Your task to perform on an android device: Do I have any events tomorrow? Image 0: 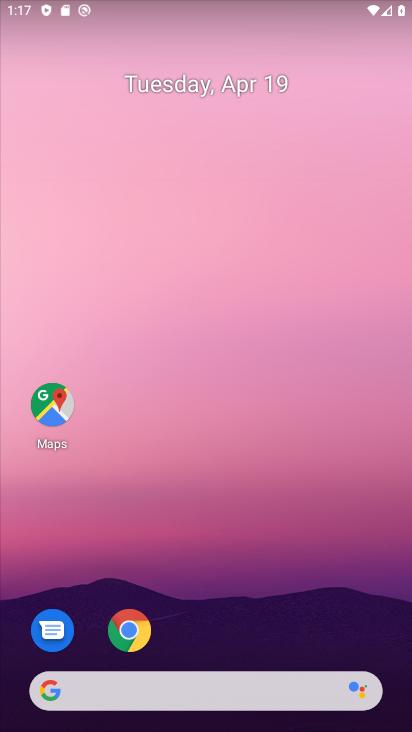
Step 0: click (274, 50)
Your task to perform on an android device: Do I have any events tomorrow? Image 1: 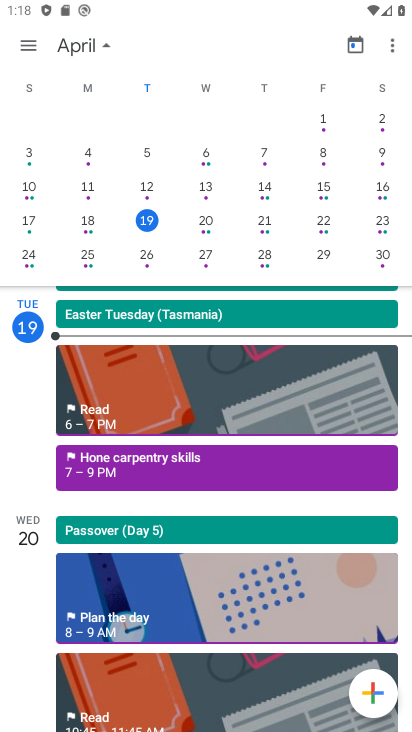
Step 1: press back button
Your task to perform on an android device: Do I have any events tomorrow? Image 2: 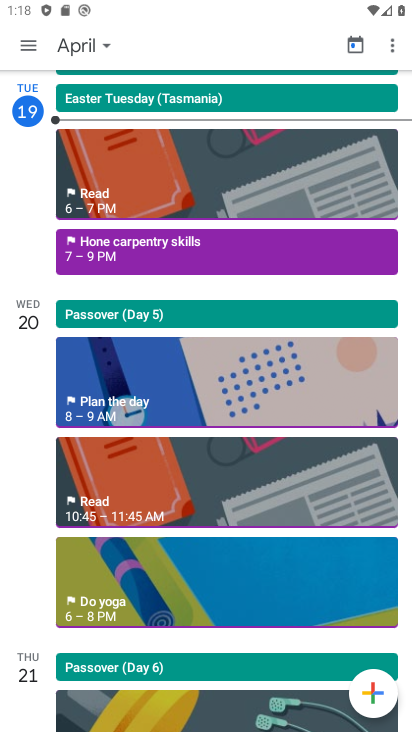
Step 2: press back button
Your task to perform on an android device: Do I have any events tomorrow? Image 3: 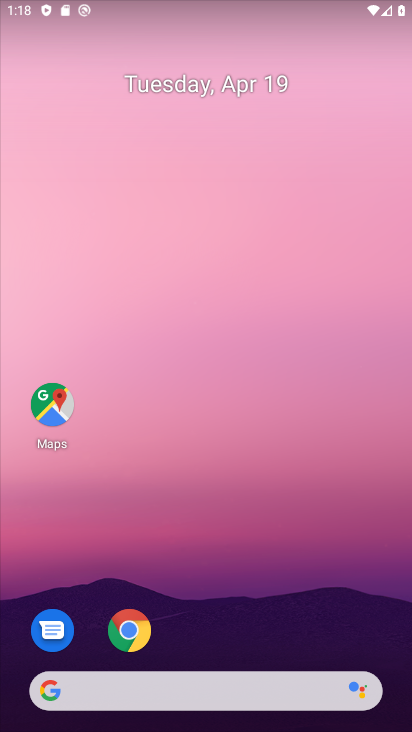
Step 3: drag from (278, 303) to (291, 5)
Your task to perform on an android device: Do I have any events tomorrow? Image 4: 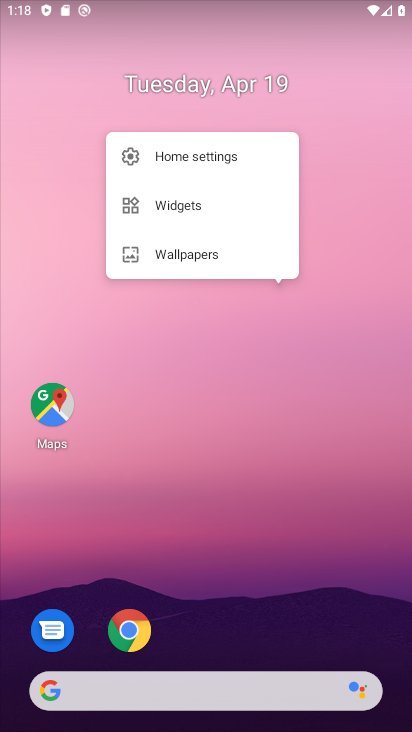
Step 4: click (291, 494)
Your task to perform on an android device: Do I have any events tomorrow? Image 5: 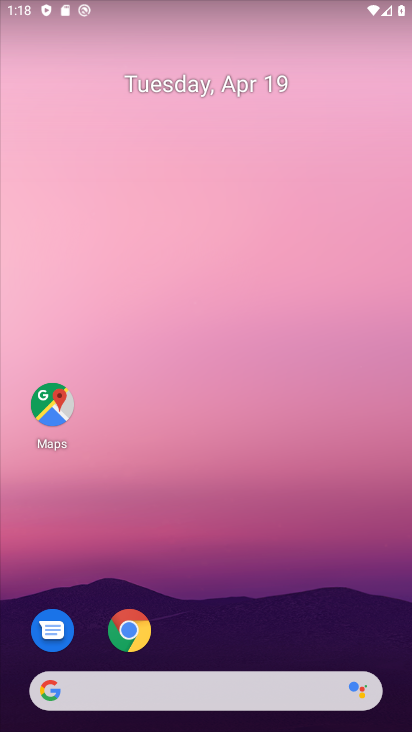
Step 5: click (212, 523)
Your task to perform on an android device: Do I have any events tomorrow? Image 6: 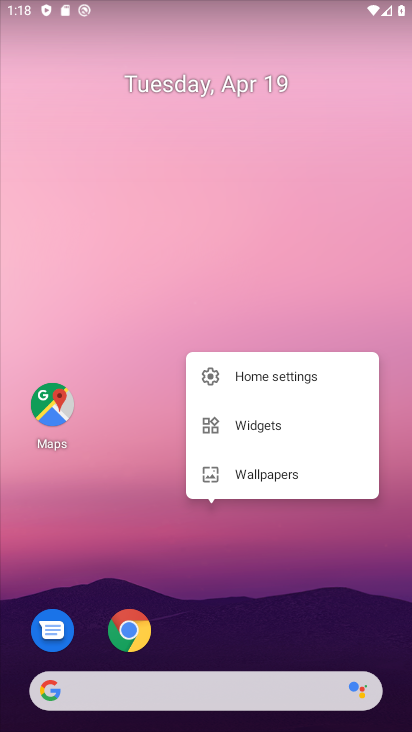
Step 6: drag from (282, 630) to (261, 29)
Your task to perform on an android device: Do I have any events tomorrow? Image 7: 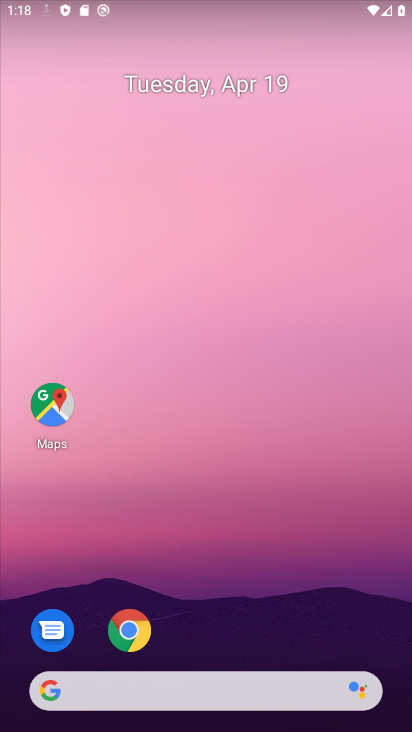
Step 7: drag from (307, 265) to (334, 2)
Your task to perform on an android device: Do I have any events tomorrow? Image 8: 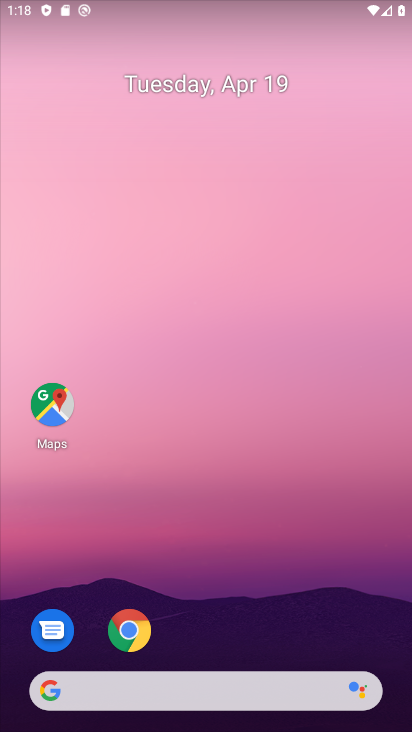
Step 8: drag from (310, 472) to (251, 16)
Your task to perform on an android device: Do I have any events tomorrow? Image 9: 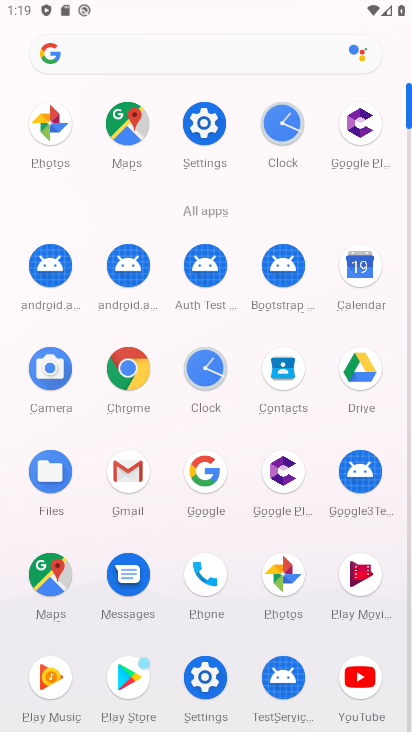
Step 9: click (354, 274)
Your task to perform on an android device: Do I have any events tomorrow? Image 10: 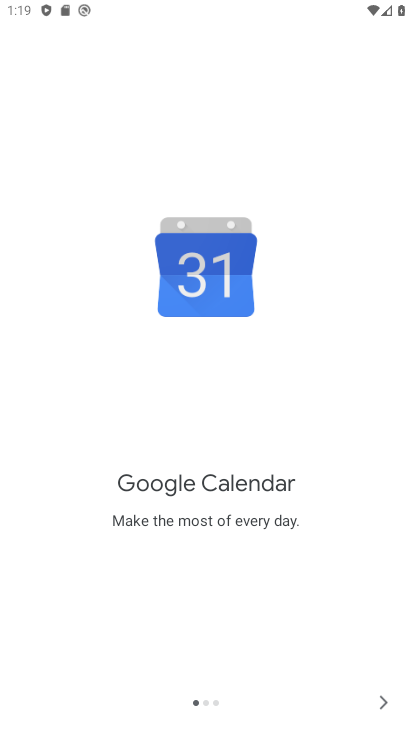
Step 10: click (379, 695)
Your task to perform on an android device: Do I have any events tomorrow? Image 11: 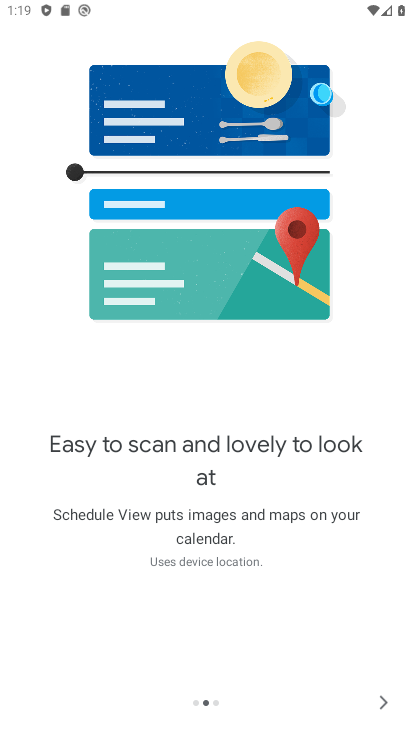
Step 11: click (378, 695)
Your task to perform on an android device: Do I have any events tomorrow? Image 12: 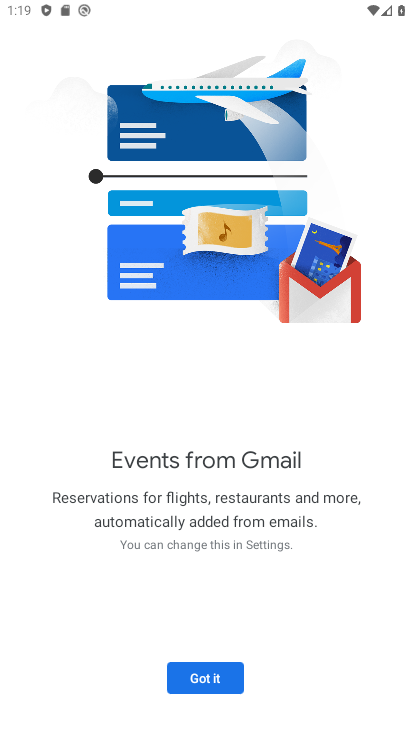
Step 12: click (215, 679)
Your task to perform on an android device: Do I have any events tomorrow? Image 13: 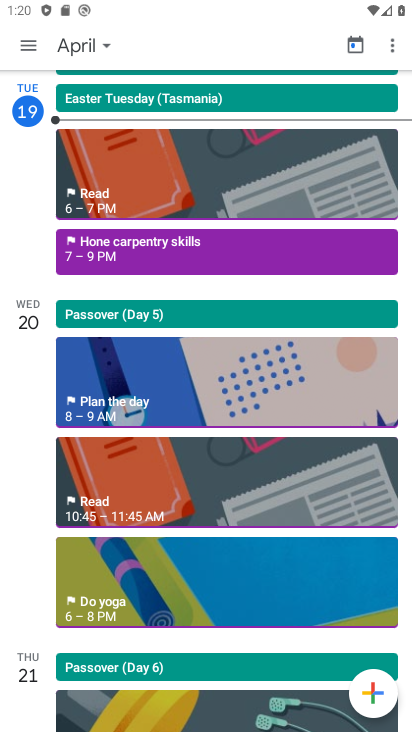
Step 13: click (32, 43)
Your task to perform on an android device: Do I have any events tomorrow? Image 14: 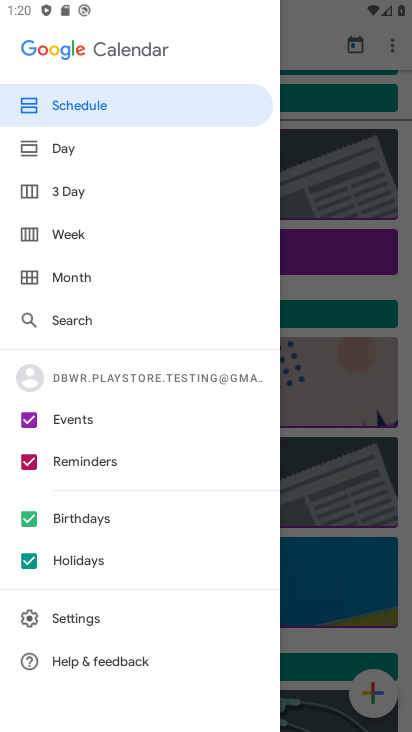
Step 14: click (25, 560)
Your task to perform on an android device: Do I have any events tomorrow? Image 15: 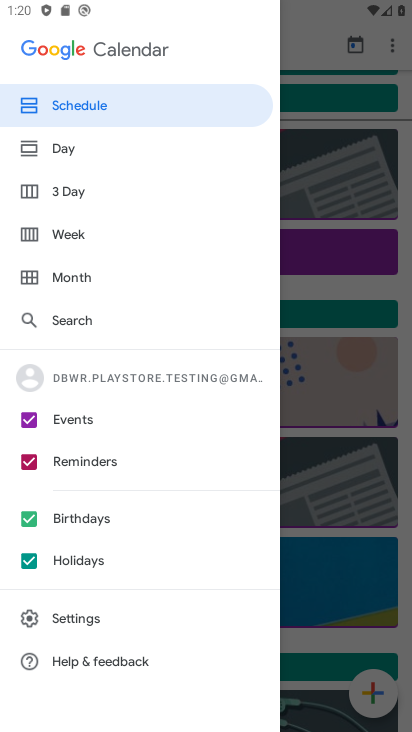
Step 15: click (31, 519)
Your task to perform on an android device: Do I have any events tomorrow? Image 16: 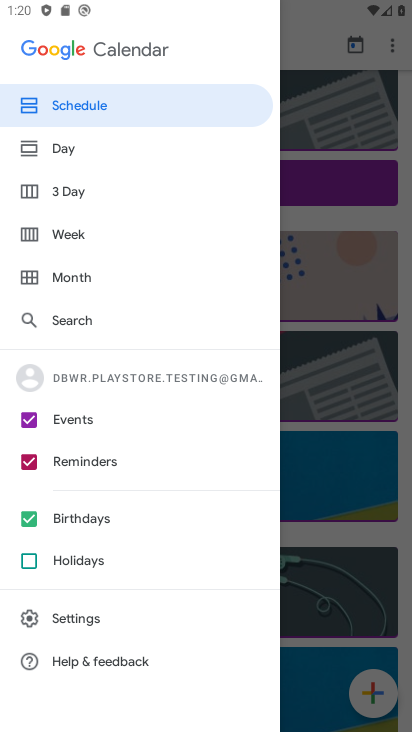
Step 16: click (27, 460)
Your task to perform on an android device: Do I have any events tomorrow? Image 17: 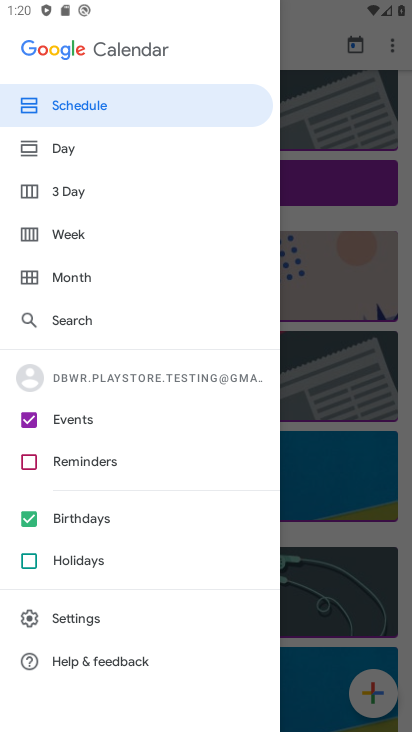
Step 17: click (27, 516)
Your task to perform on an android device: Do I have any events tomorrow? Image 18: 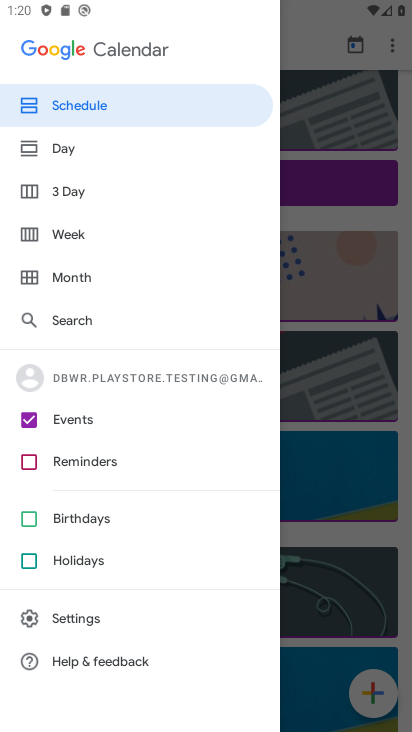
Step 18: click (306, 48)
Your task to perform on an android device: Do I have any events tomorrow? Image 19: 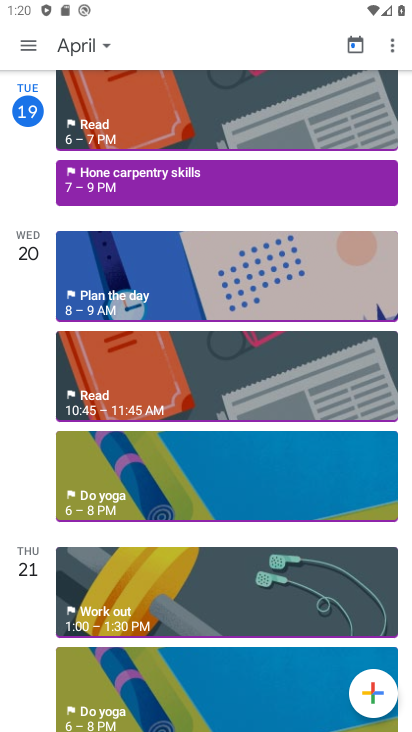
Step 19: task complete